Your task to perform on an android device: Open battery settings Image 0: 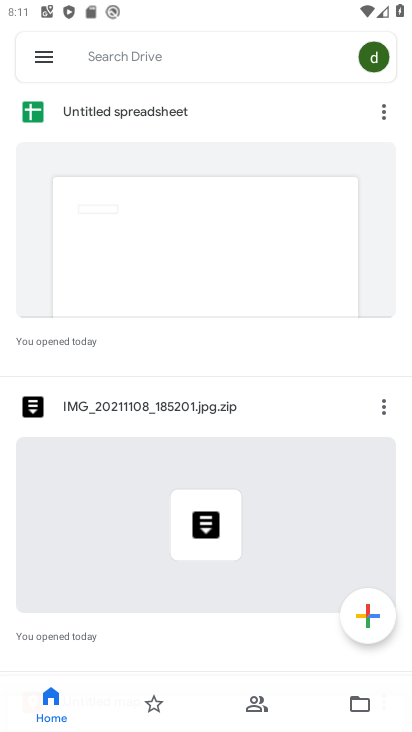
Step 0: press home button
Your task to perform on an android device: Open battery settings Image 1: 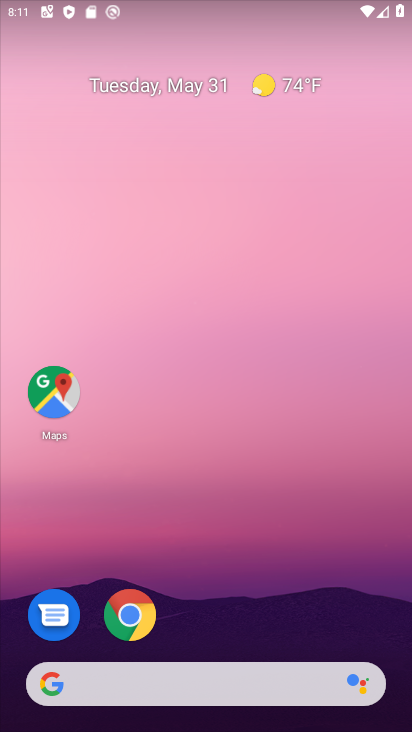
Step 1: drag from (159, 677) to (293, 61)
Your task to perform on an android device: Open battery settings Image 2: 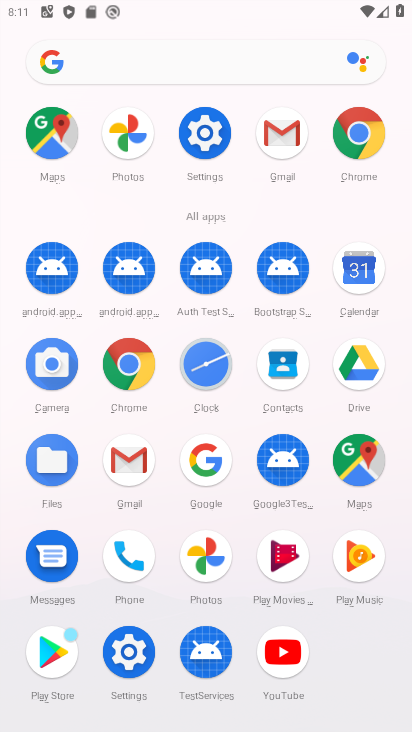
Step 2: click (206, 132)
Your task to perform on an android device: Open battery settings Image 3: 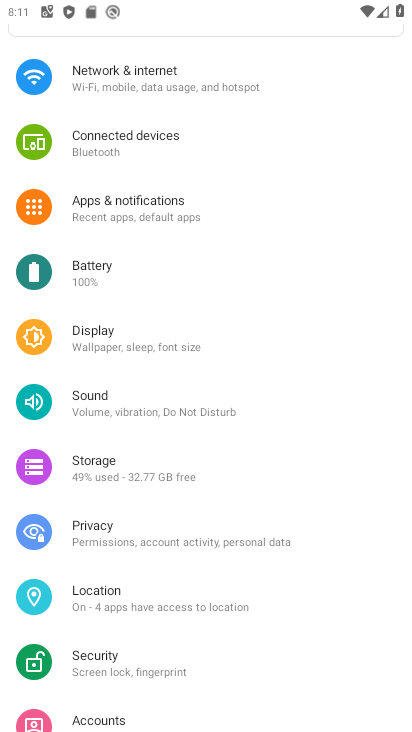
Step 3: click (74, 278)
Your task to perform on an android device: Open battery settings Image 4: 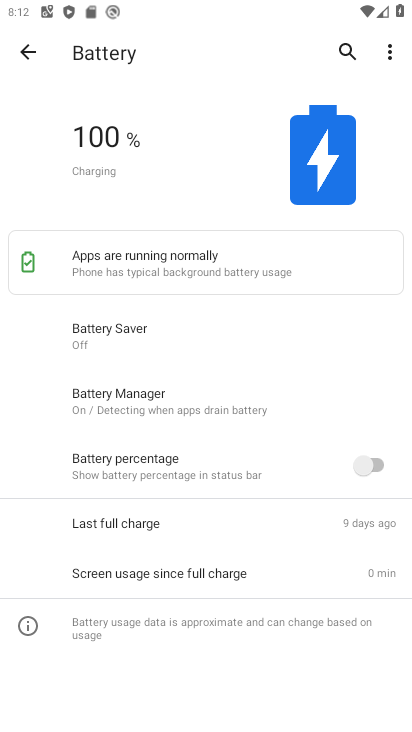
Step 4: task complete